Your task to perform on an android device: see creations saved in the google photos Image 0: 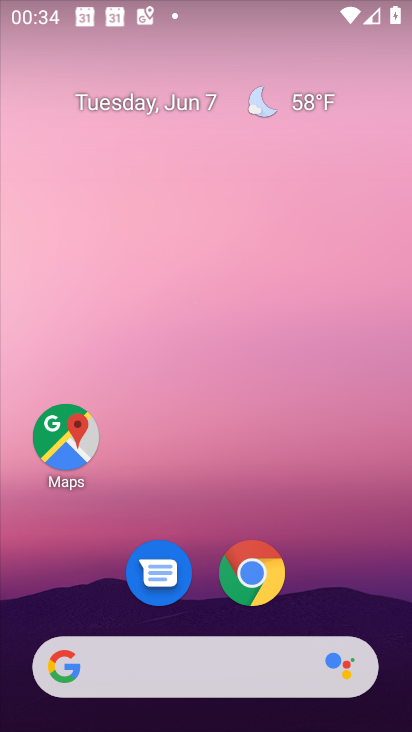
Step 0: press home button
Your task to perform on an android device: see creations saved in the google photos Image 1: 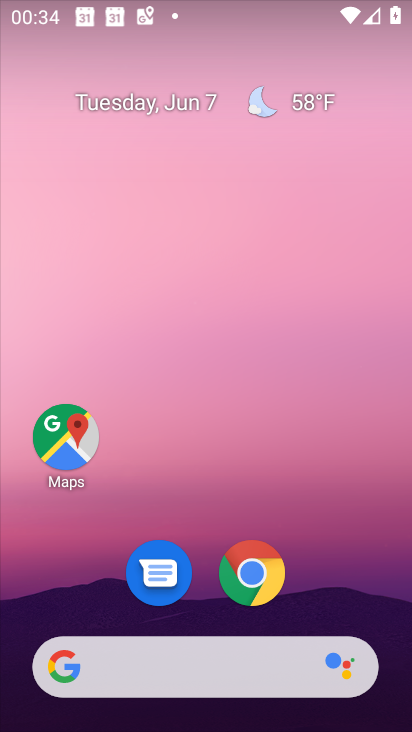
Step 1: drag from (346, 633) to (282, 48)
Your task to perform on an android device: see creations saved in the google photos Image 2: 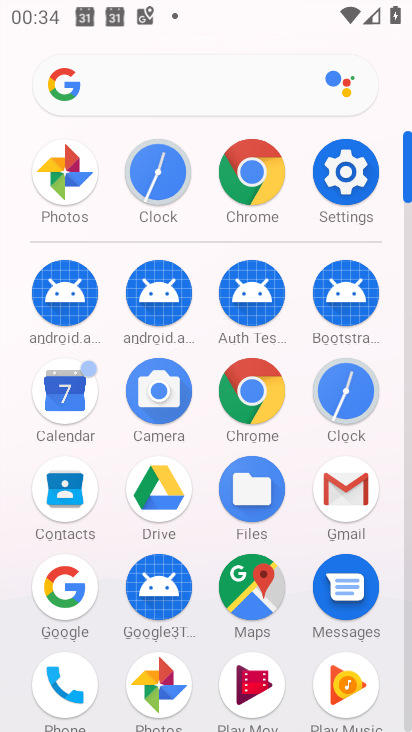
Step 2: click (158, 689)
Your task to perform on an android device: see creations saved in the google photos Image 3: 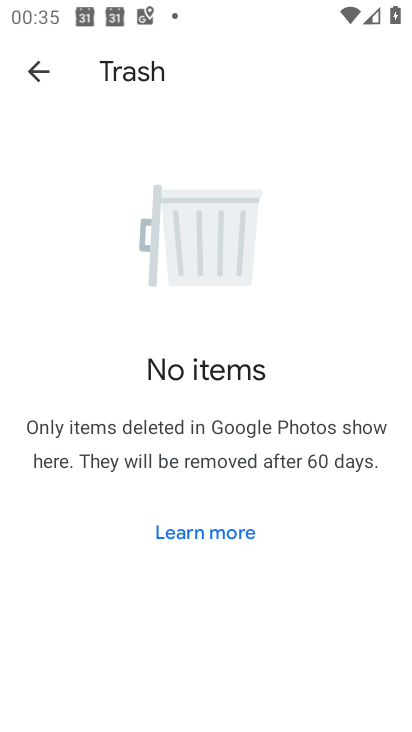
Step 3: click (34, 72)
Your task to perform on an android device: see creations saved in the google photos Image 4: 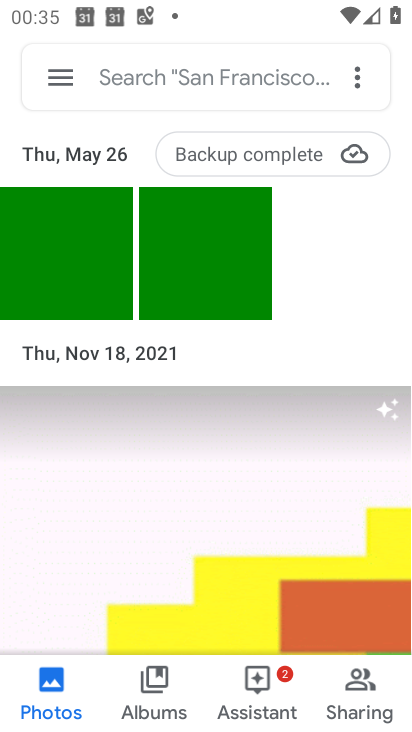
Step 4: click (134, 59)
Your task to perform on an android device: see creations saved in the google photos Image 5: 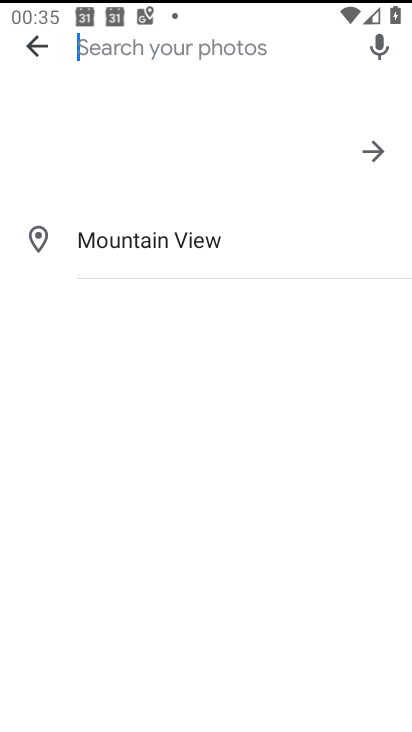
Step 5: click (146, 88)
Your task to perform on an android device: see creations saved in the google photos Image 6: 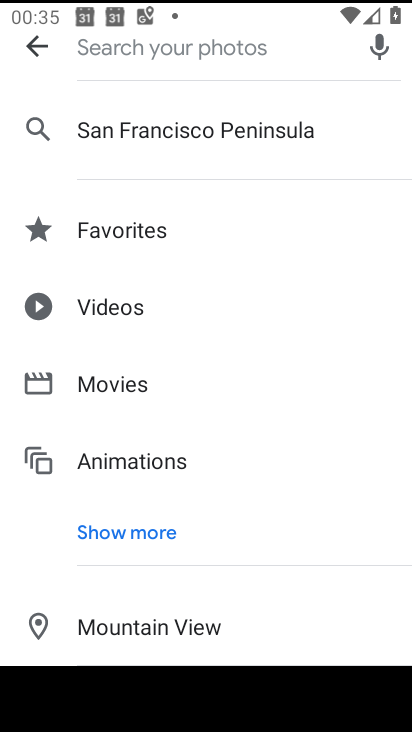
Step 6: click (131, 539)
Your task to perform on an android device: see creations saved in the google photos Image 7: 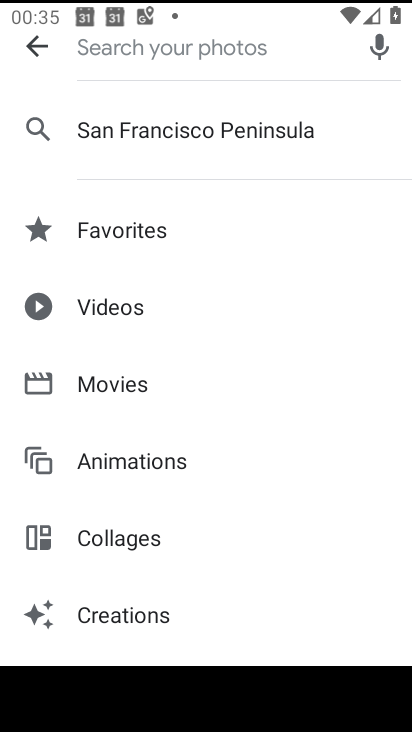
Step 7: click (146, 613)
Your task to perform on an android device: see creations saved in the google photos Image 8: 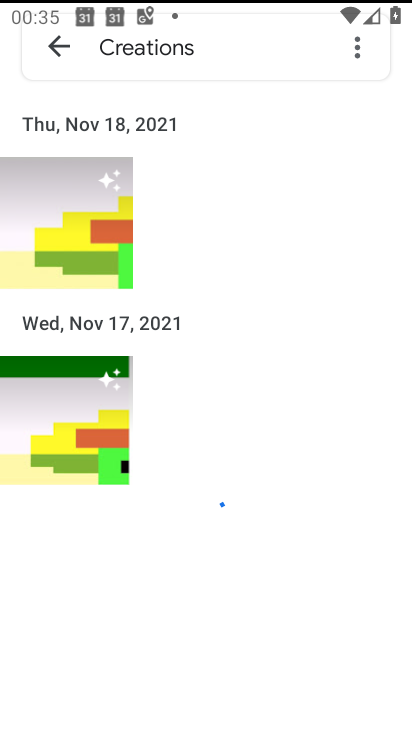
Step 8: task complete